Your task to perform on an android device: read, delete, or share a saved page in the chrome app Image 0: 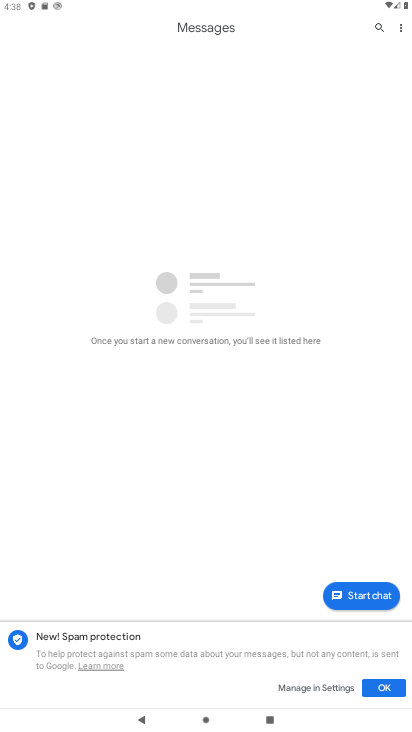
Step 0: press home button
Your task to perform on an android device: read, delete, or share a saved page in the chrome app Image 1: 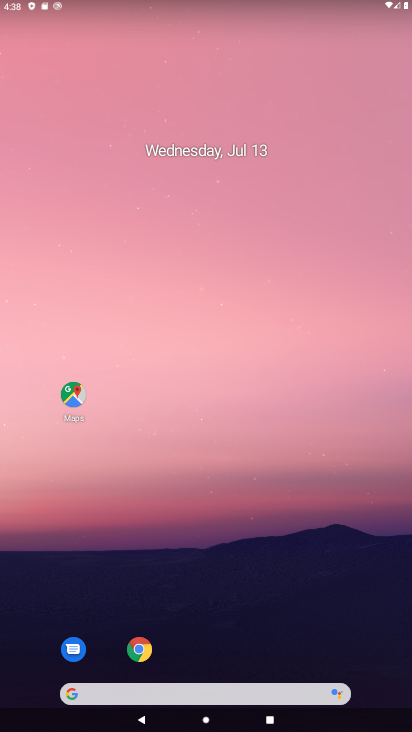
Step 1: drag from (318, 547) to (362, 0)
Your task to perform on an android device: read, delete, or share a saved page in the chrome app Image 2: 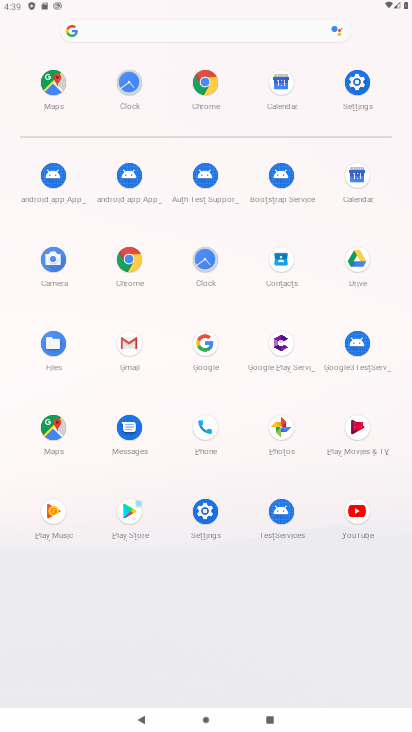
Step 2: click (217, 89)
Your task to perform on an android device: read, delete, or share a saved page in the chrome app Image 3: 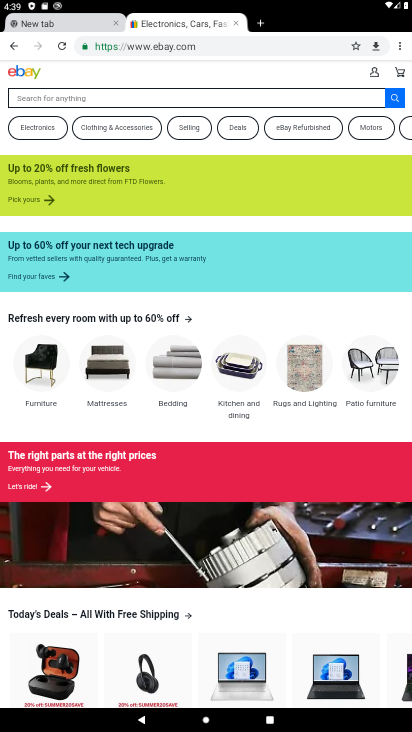
Step 3: drag from (397, 48) to (335, 163)
Your task to perform on an android device: read, delete, or share a saved page in the chrome app Image 4: 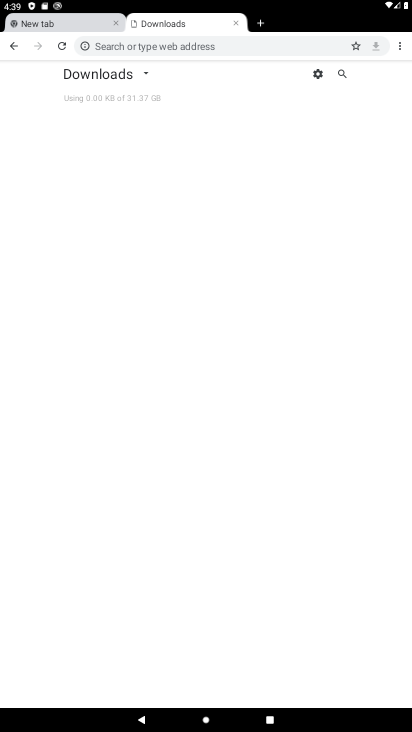
Step 4: click (146, 73)
Your task to perform on an android device: read, delete, or share a saved page in the chrome app Image 5: 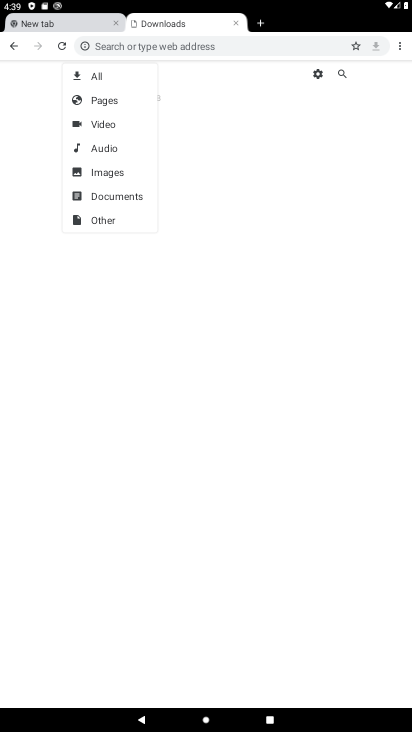
Step 5: click (101, 102)
Your task to perform on an android device: read, delete, or share a saved page in the chrome app Image 6: 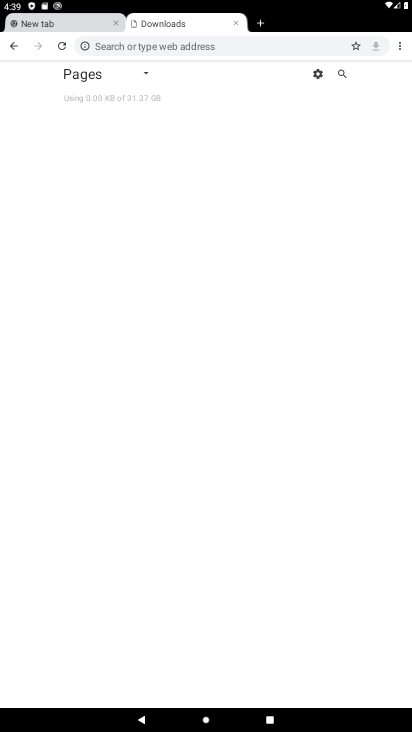
Step 6: task complete